Your task to perform on an android device: turn off airplane mode Image 0: 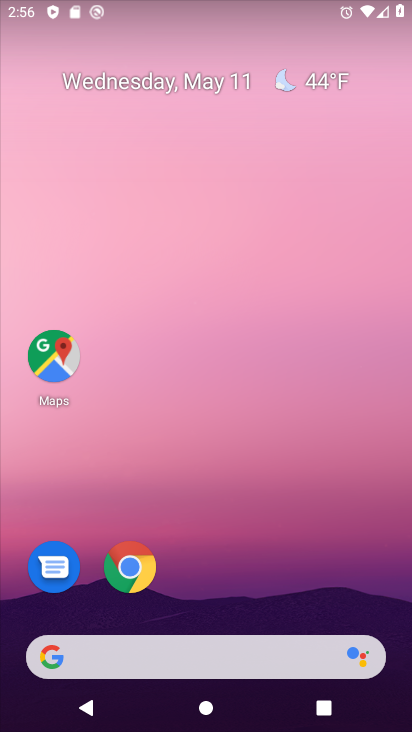
Step 0: drag from (239, 532) to (185, 26)
Your task to perform on an android device: turn off airplane mode Image 1: 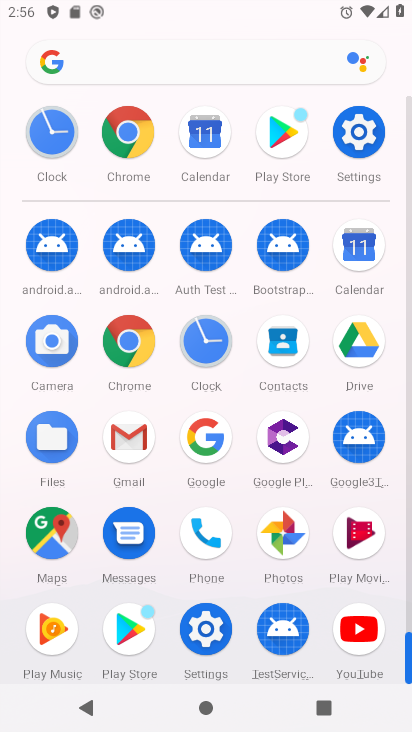
Step 1: drag from (5, 565) to (12, 181)
Your task to perform on an android device: turn off airplane mode Image 2: 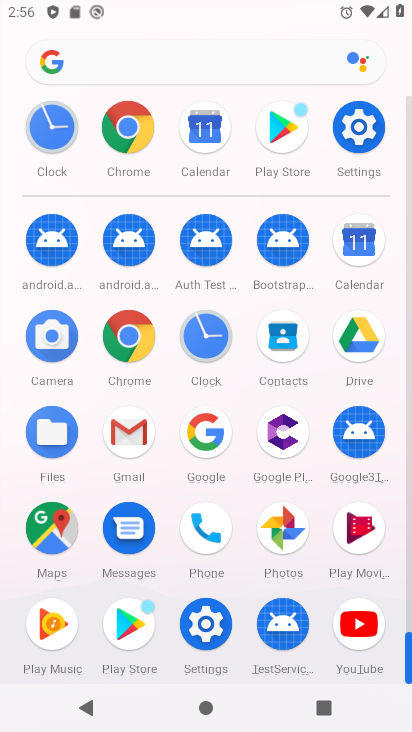
Step 2: click (200, 618)
Your task to perform on an android device: turn off airplane mode Image 3: 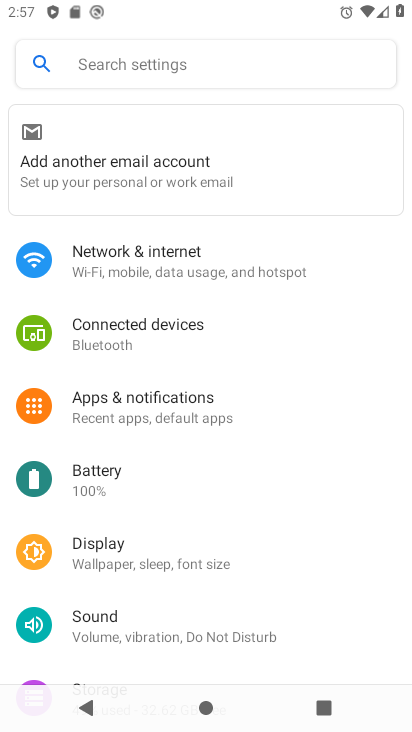
Step 3: click (164, 257)
Your task to perform on an android device: turn off airplane mode Image 4: 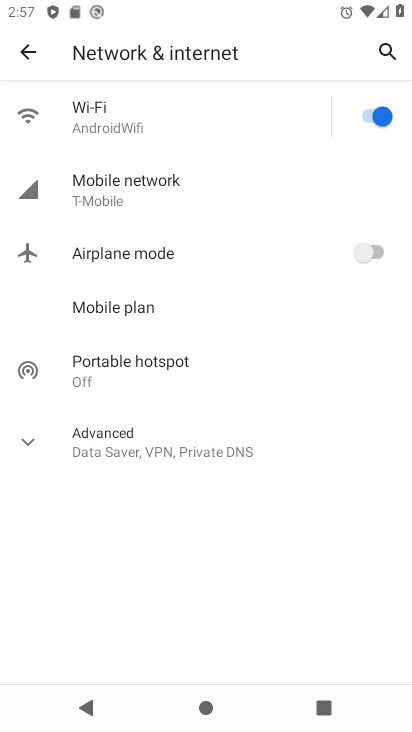
Step 4: click (38, 445)
Your task to perform on an android device: turn off airplane mode Image 5: 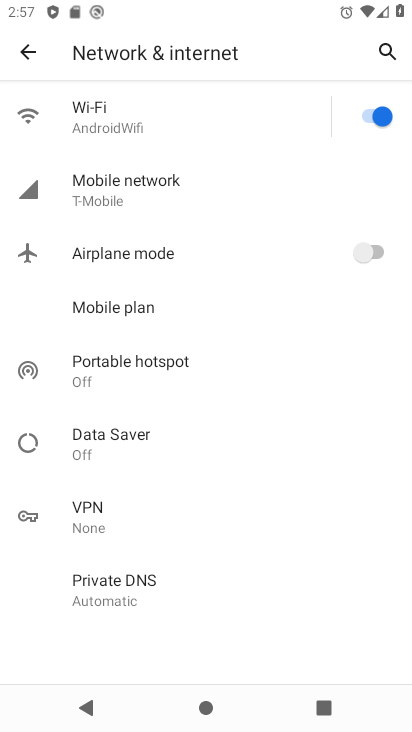
Step 5: task complete